Your task to perform on an android device: Go to display settings Image 0: 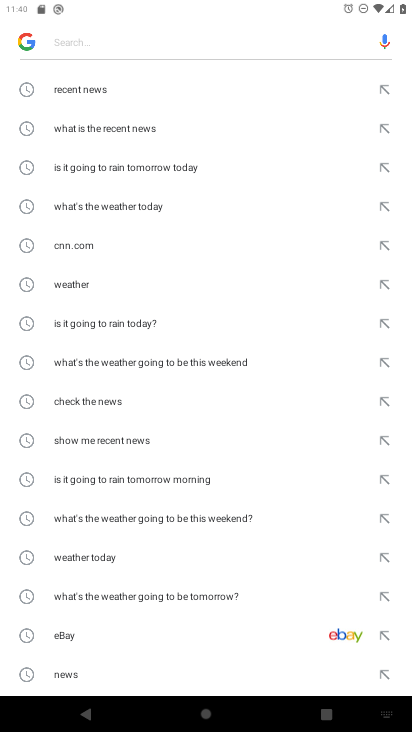
Step 0: press home button
Your task to perform on an android device: Go to display settings Image 1: 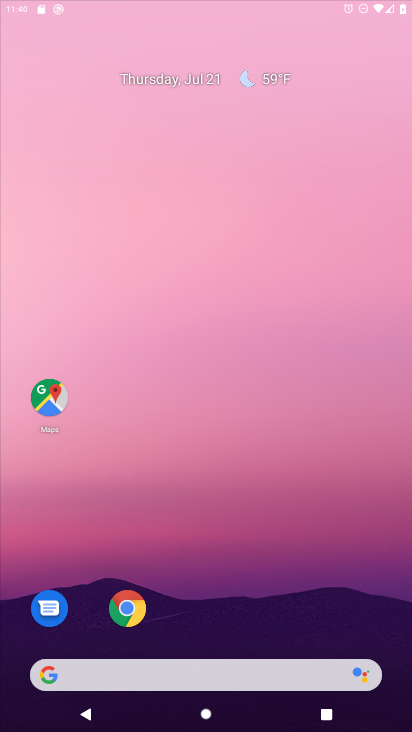
Step 1: drag from (399, 647) to (228, 72)
Your task to perform on an android device: Go to display settings Image 2: 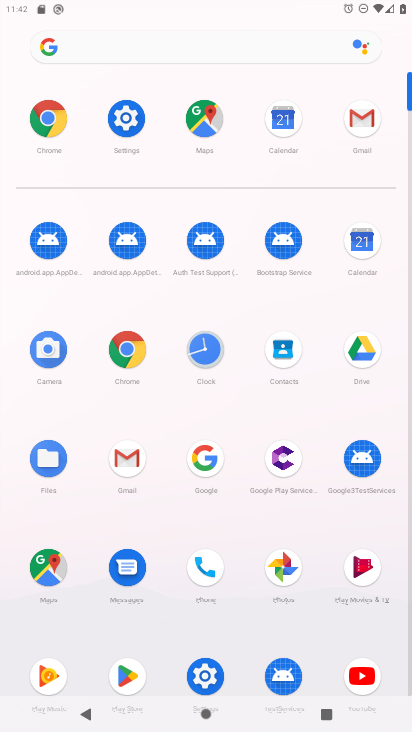
Step 2: click (208, 668)
Your task to perform on an android device: Go to display settings Image 3: 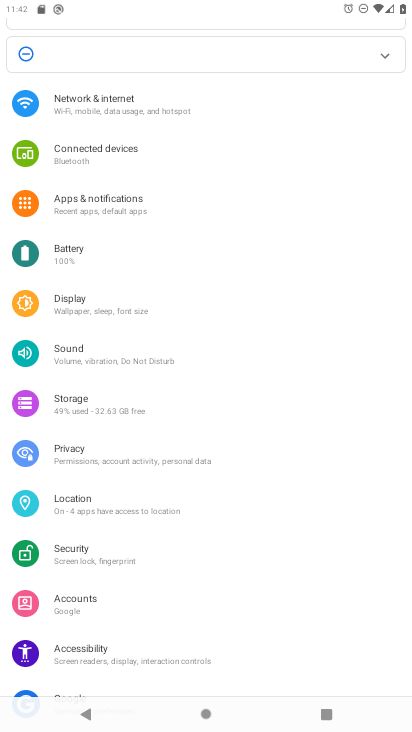
Step 3: click (93, 303)
Your task to perform on an android device: Go to display settings Image 4: 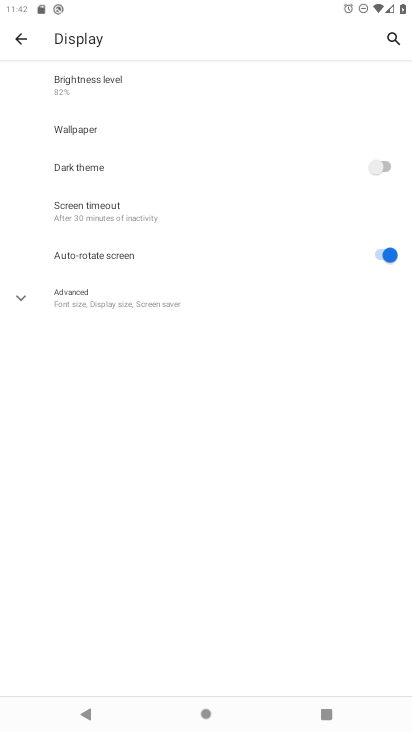
Step 4: task complete